Your task to perform on an android device: Is it going to rain tomorrow? Image 0: 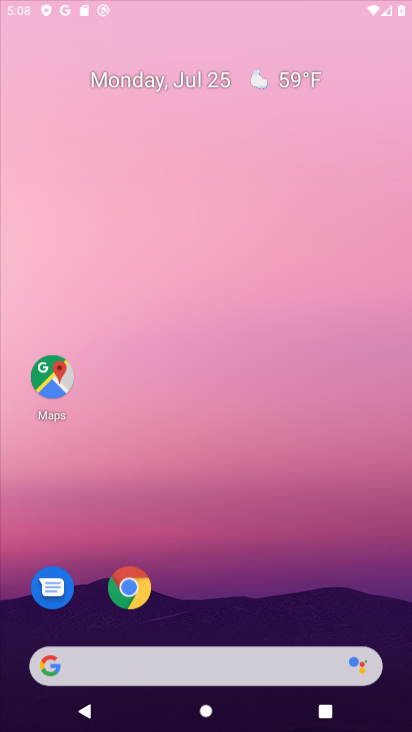
Step 0: click (295, 131)
Your task to perform on an android device: Is it going to rain tomorrow? Image 1: 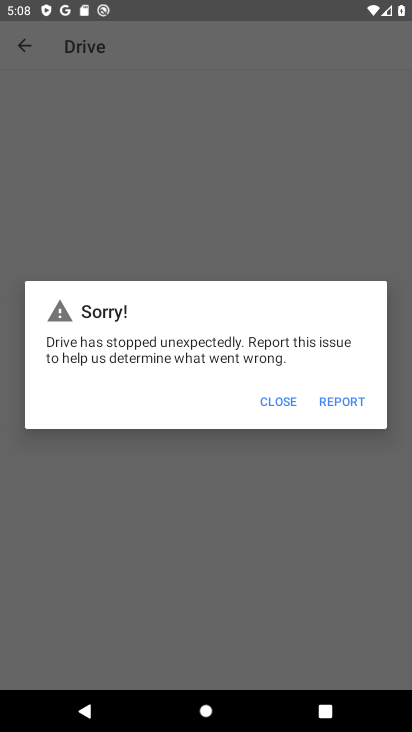
Step 1: press home button
Your task to perform on an android device: Is it going to rain tomorrow? Image 2: 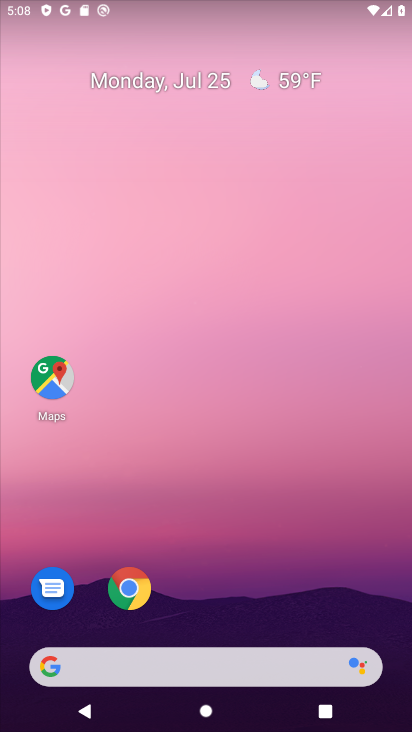
Step 2: drag from (271, 541) to (261, 233)
Your task to perform on an android device: Is it going to rain tomorrow? Image 3: 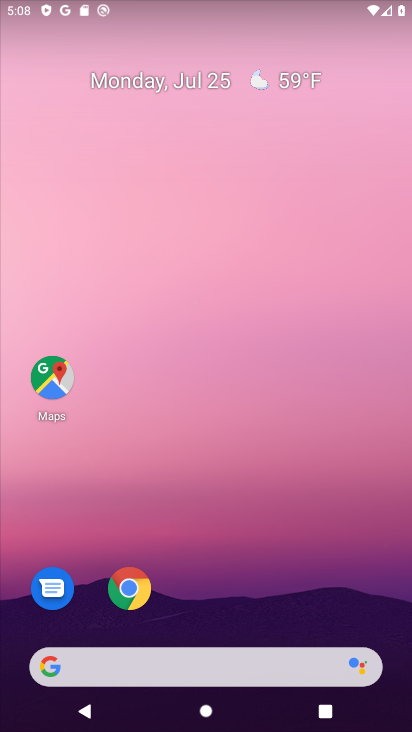
Step 3: drag from (267, 449) to (290, 66)
Your task to perform on an android device: Is it going to rain tomorrow? Image 4: 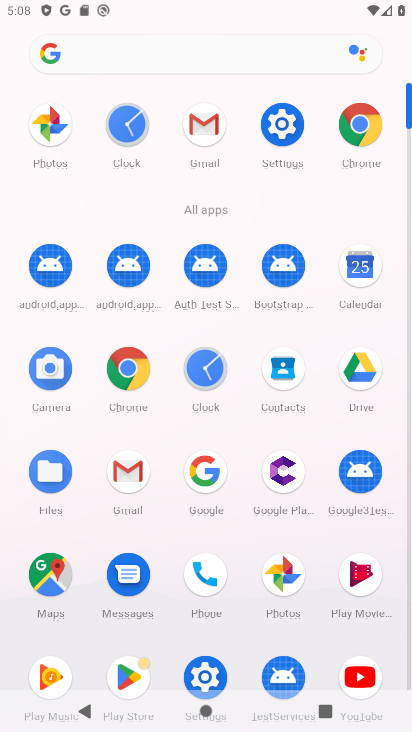
Step 4: click (289, 128)
Your task to perform on an android device: Is it going to rain tomorrow? Image 5: 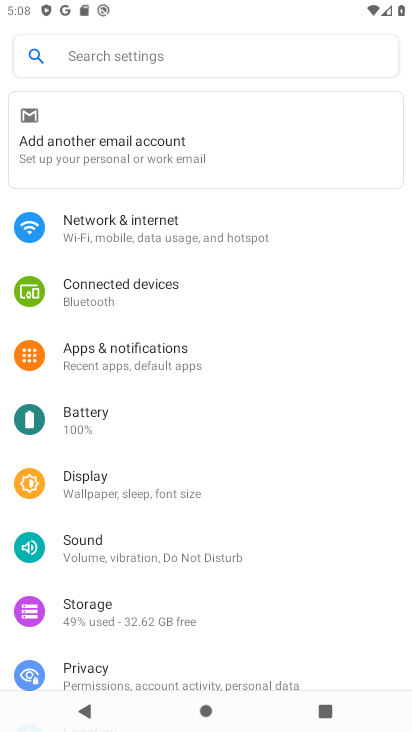
Step 5: press home button
Your task to perform on an android device: Is it going to rain tomorrow? Image 6: 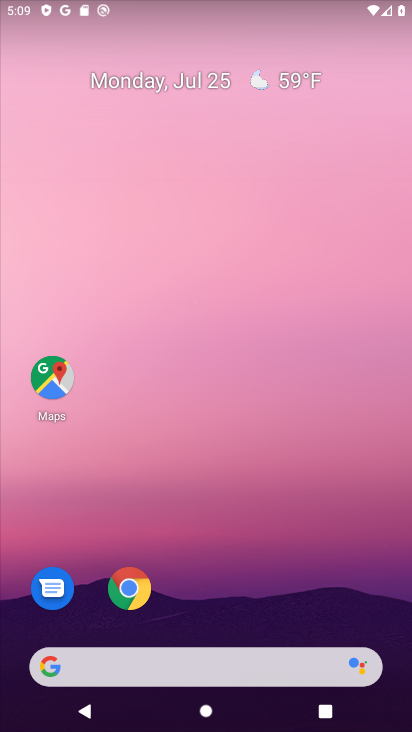
Step 6: click (214, 658)
Your task to perform on an android device: Is it going to rain tomorrow? Image 7: 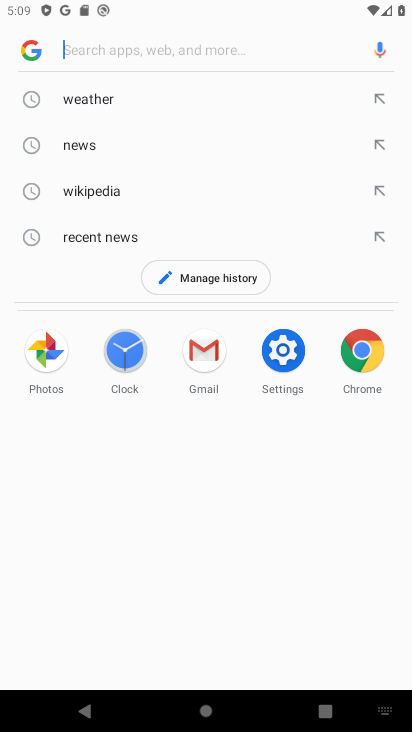
Step 7: type "Is it going to rain tomorrow?"
Your task to perform on an android device: Is it going to rain tomorrow? Image 8: 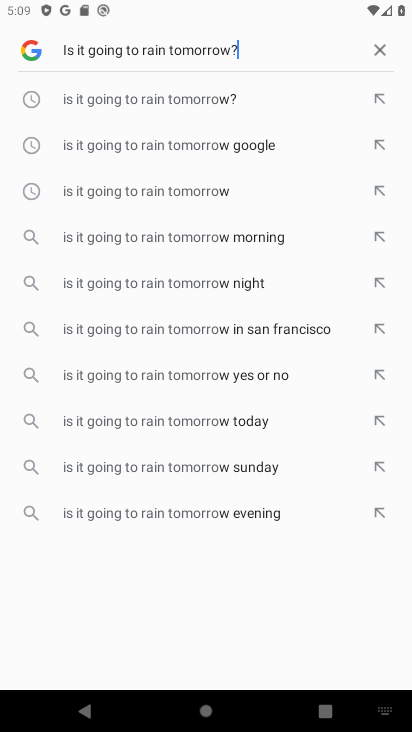
Step 8: press enter
Your task to perform on an android device: Is it going to rain tomorrow? Image 9: 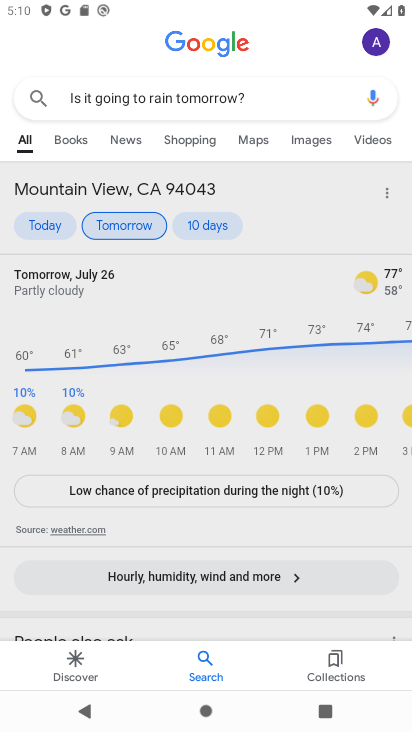
Step 9: task complete